Your task to perform on an android device: Open Google Image 0: 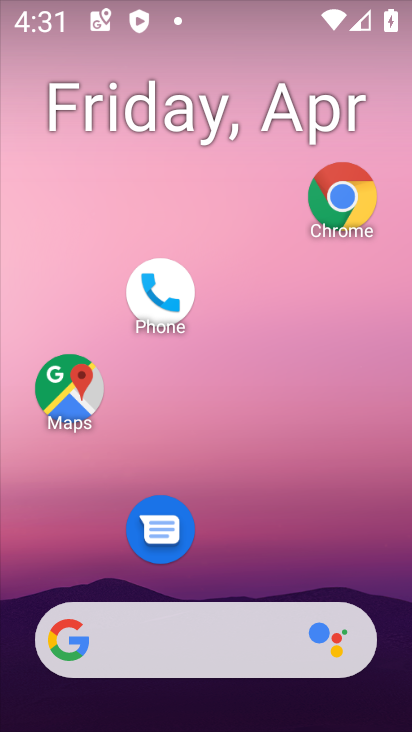
Step 0: drag from (248, 188) to (248, 100)
Your task to perform on an android device: Open Google Image 1: 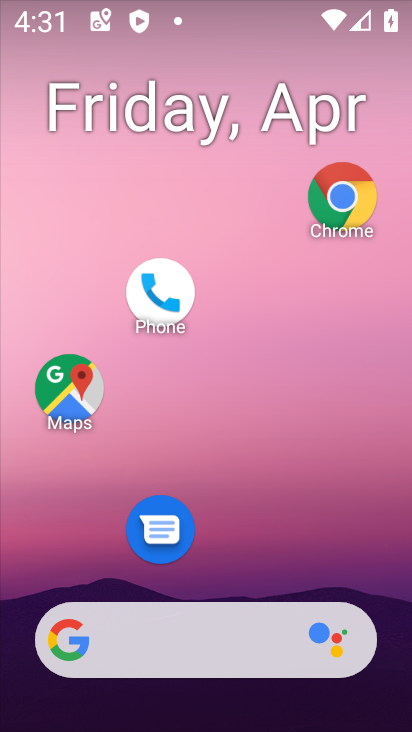
Step 1: drag from (232, 264) to (231, 95)
Your task to perform on an android device: Open Google Image 2: 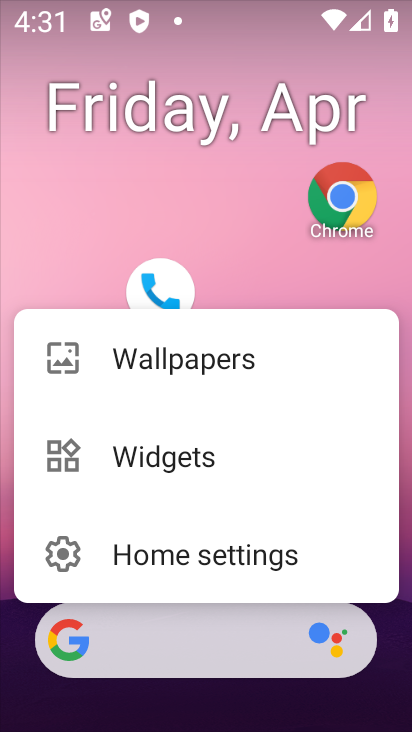
Step 2: click (237, 212)
Your task to perform on an android device: Open Google Image 3: 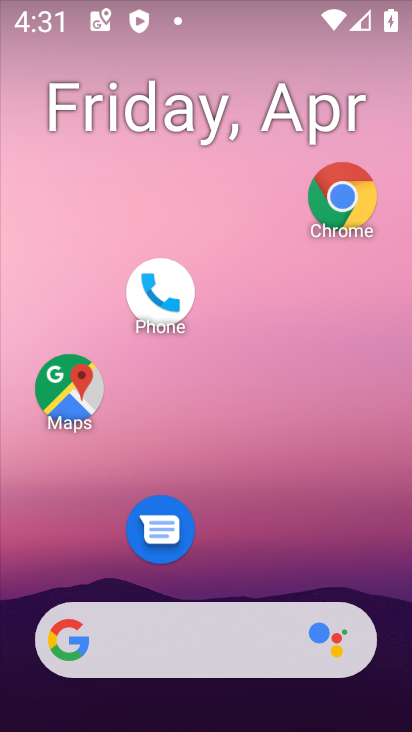
Step 3: drag from (217, 555) to (228, 79)
Your task to perform on an android device: Open Google Image 4: 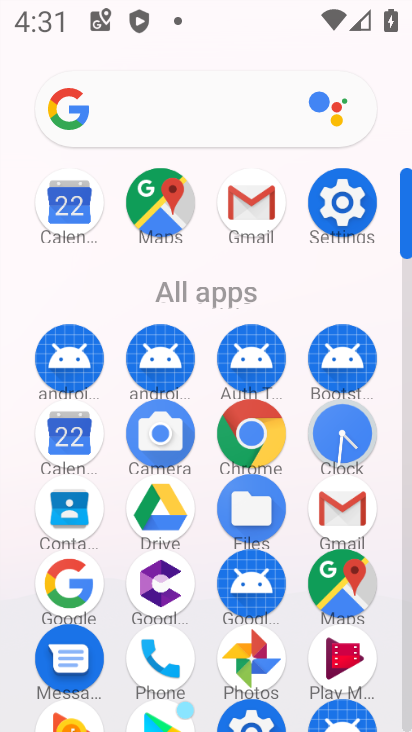
Step 4: click (68, 578)
Your task to perform on an android device: Open Google Image 5: 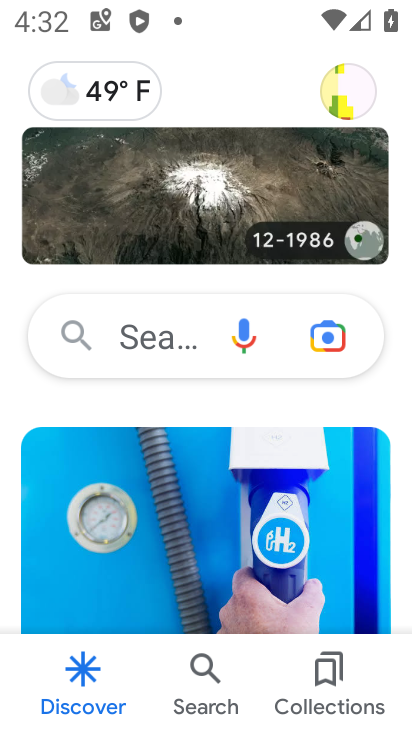
Step 5: task complete